Your task to perform on an android device: Do I have any events today? Image 0: 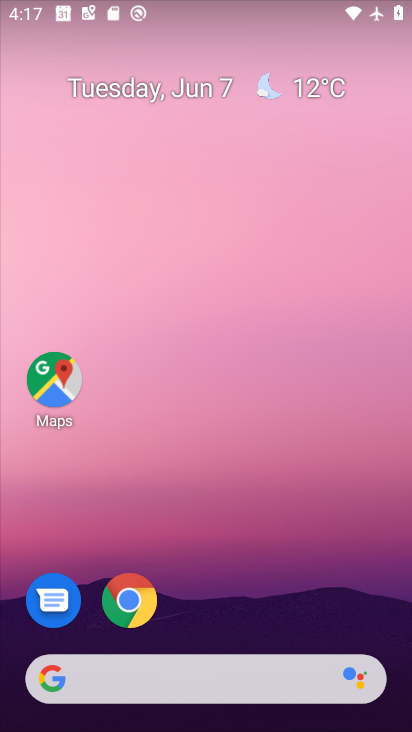
Step 0: drag from (195, 597) to (181, 131)
Your task to perform on an android device: Do I have any events today? Image 1: 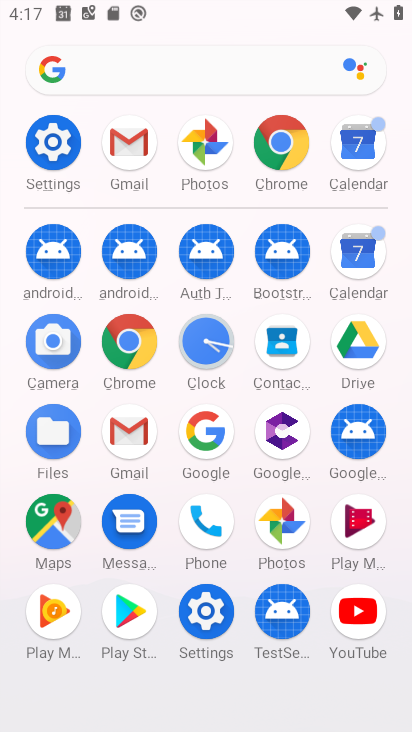
Step 1: click (371, 254)
Your task to perform on an android device: Do I have any events today? Image 2: 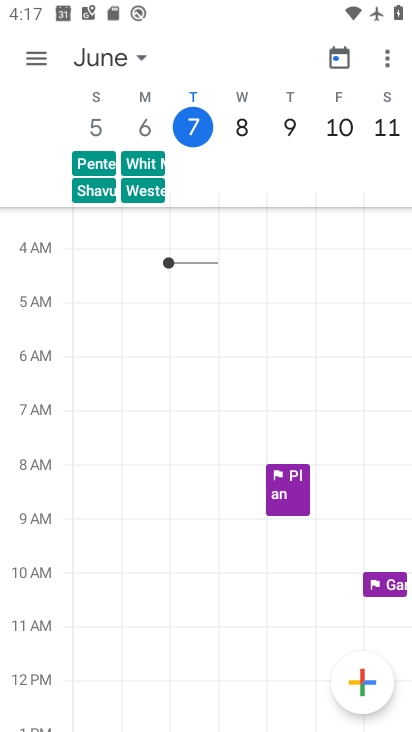
Step 2: task complete